Your task to perform on an android device: turn off priority inbox in the gmail app Image 0: 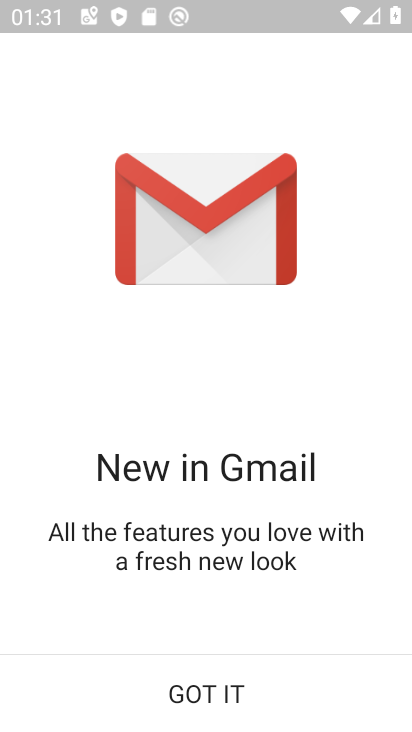
Step 0: click (214, 687)
Your task to perform on an android device: turn off priority inbox in the gmail app Image 1: 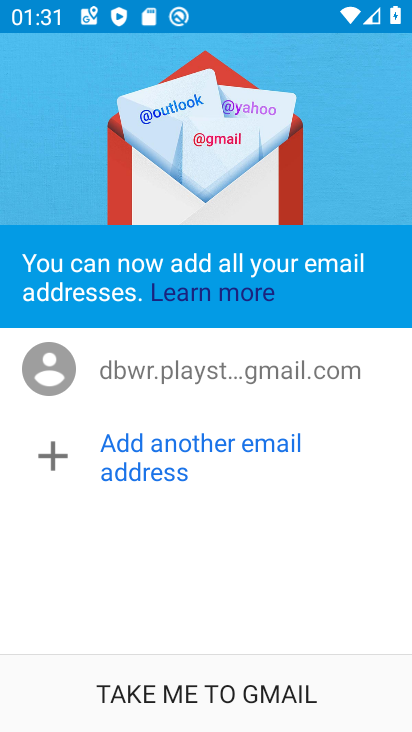
Step 1: click (214, 686)
Your task to perform on an android device: turn off priority inbox in the gmail app Image 2: 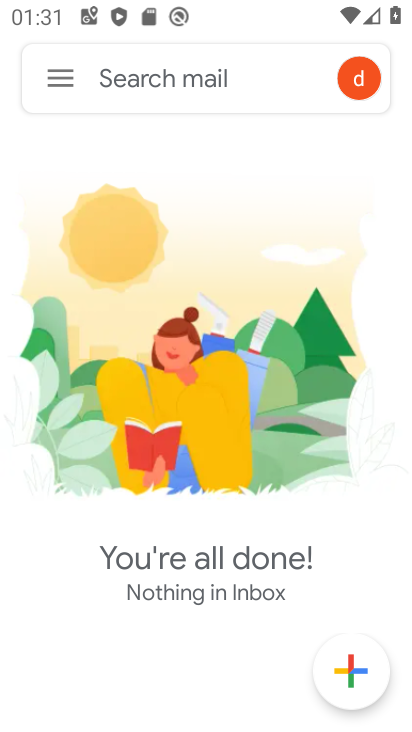
Step 2: click (62, 75)
Your task to perform on an android device: turn off priority inbox in the gmail app Image 3: 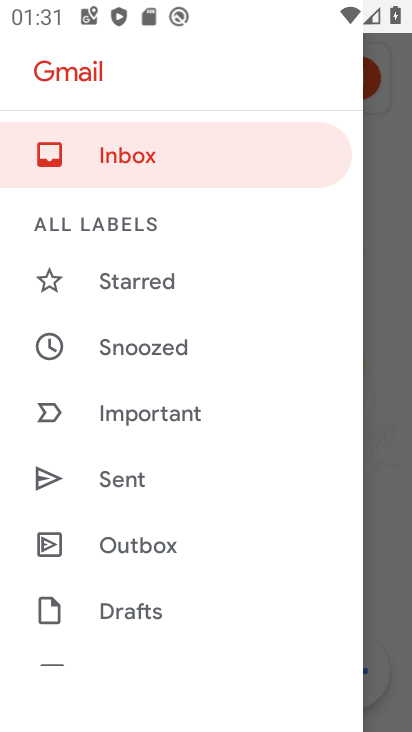
Step 3: drag from (171, 493) to (186, 409)
Your task to perform on an android device: turn off priority inbox in the gmail app Image 4: 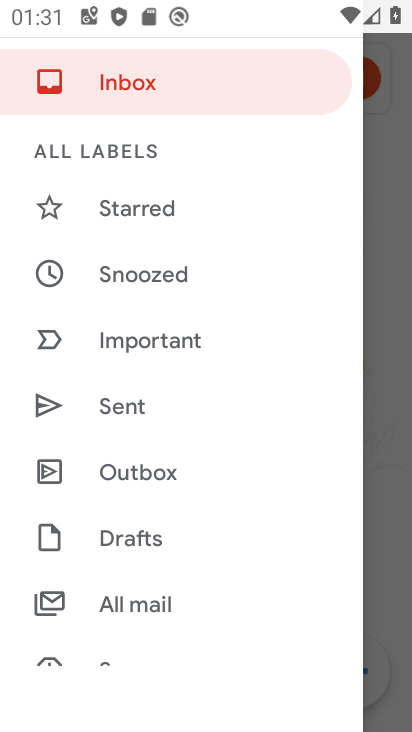
Step 4: drag from (169, 522) to (203, 436)
Your task to perform on an android device: turn off priority inbox in the gmail app Image 5: 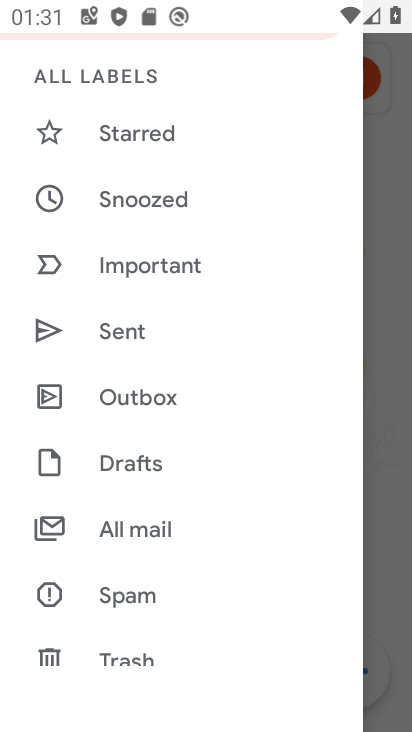
Step 5: drag from (179, 572) to (212, 454)
Your task to perform on an android device: turn off priority inbox in the gmail app Image 6: 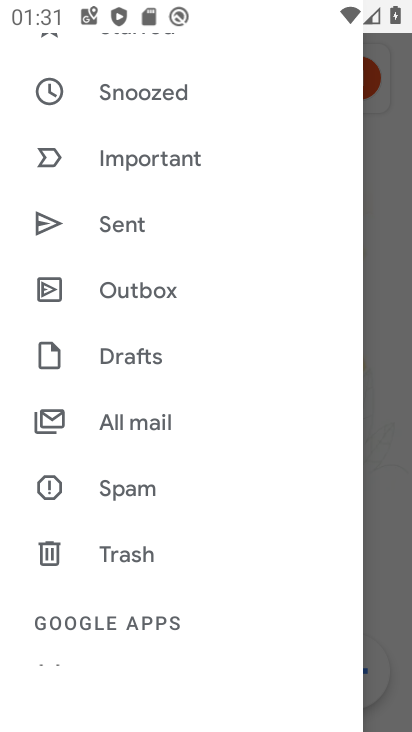
Step 6: drag from (166, 586) to (215, 470)
Your task to perform on an android device: turn off priority inbox in the gmail app Image 7: 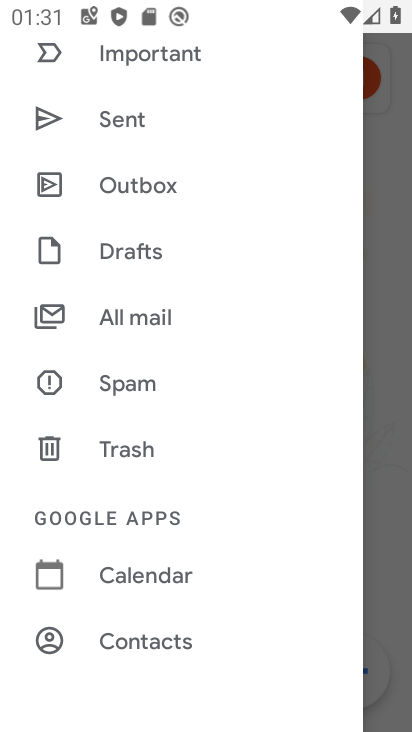
Step 7: drag from (207, 546) to (277, 425)
Your task to perform on an android device: turn off priority inbox in the gmail app Image 8: 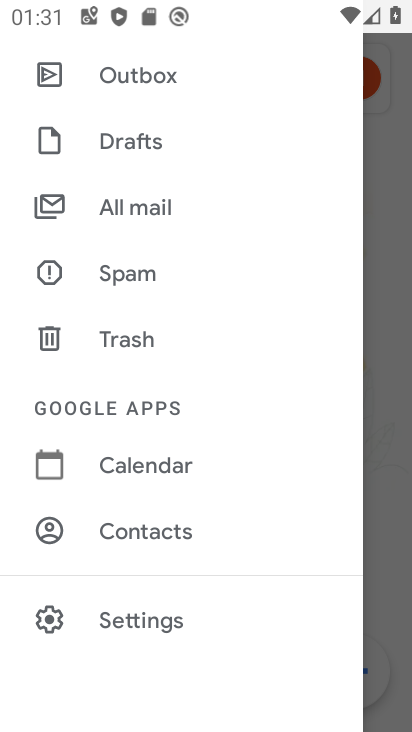
Step 8: click (160, 619)
Your task to perform on an android device: turn off priority inbox in the gmail app Image 9: 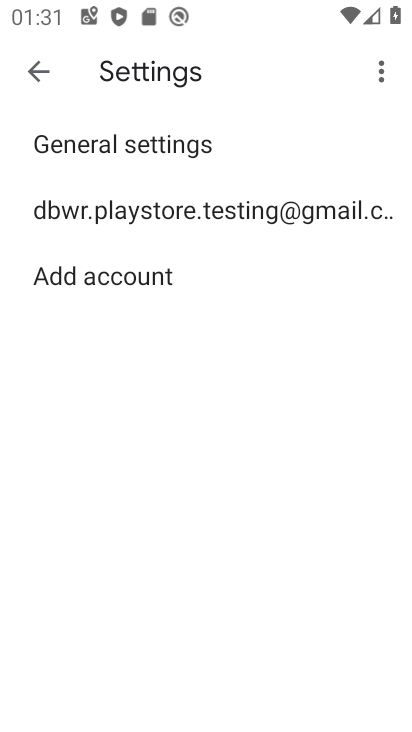
Step 9: click (195, 210)
Your task to perform on an android device: turn off priority inbox in the gmail app Image 10: 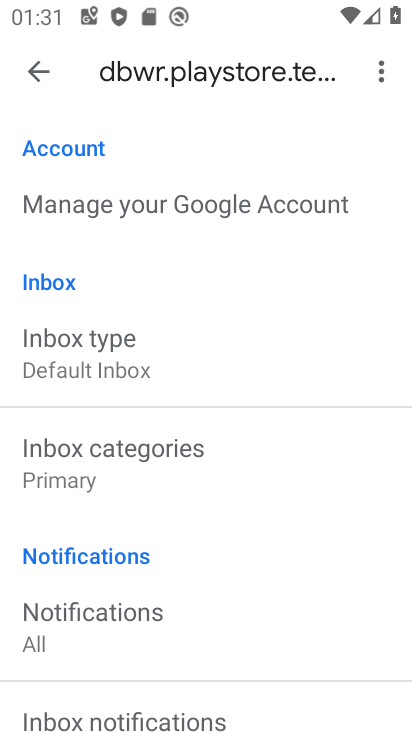
Step 10: click (128, 365)
Your task to perform on an android device: turn off priority inbox in the gmail app Image 11: 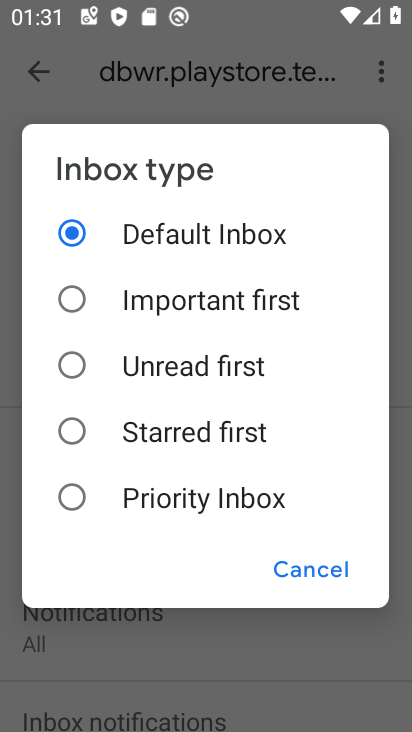
Step 11: click (75, 230)
Your task to perform on an android device: turn off priority inbox in the gmail app Image 12: 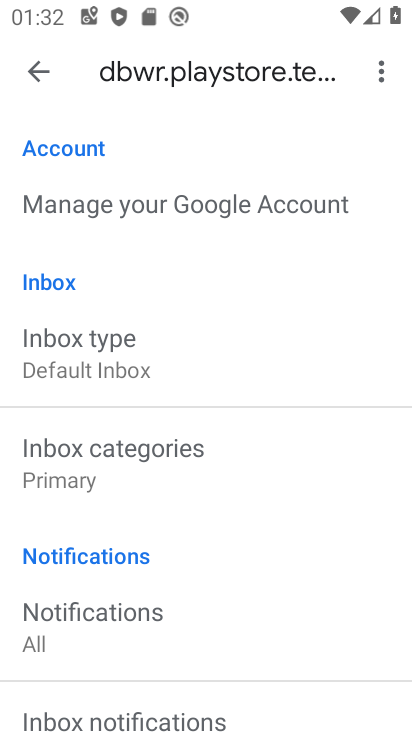
Step 12: task complete